Your task to perform on an android device: Go to wifi settings Image 0: 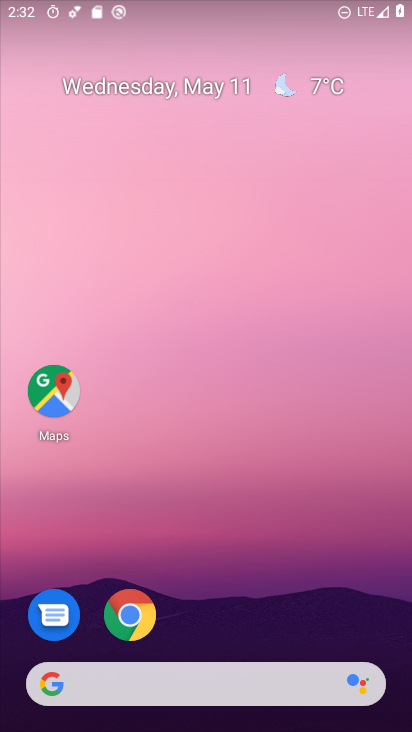
Step 0: drag from (213, 669) to (176, 188)
Your task to perform on an android device: Go to wifi settings Image 1: 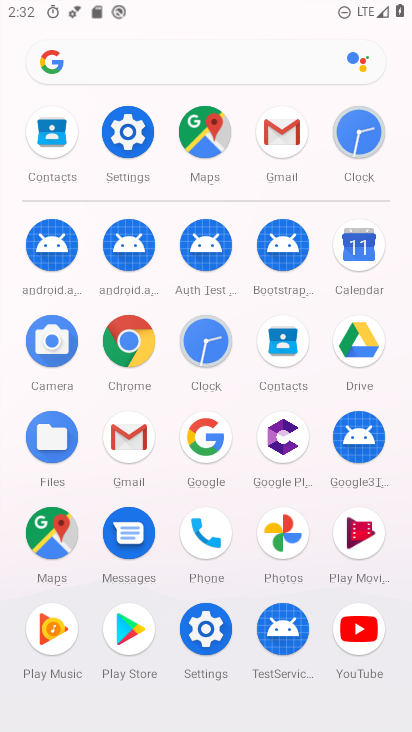
Step 1: click (138, 158)
Your task to perform on an android device: Go to wifi settings Image 2: 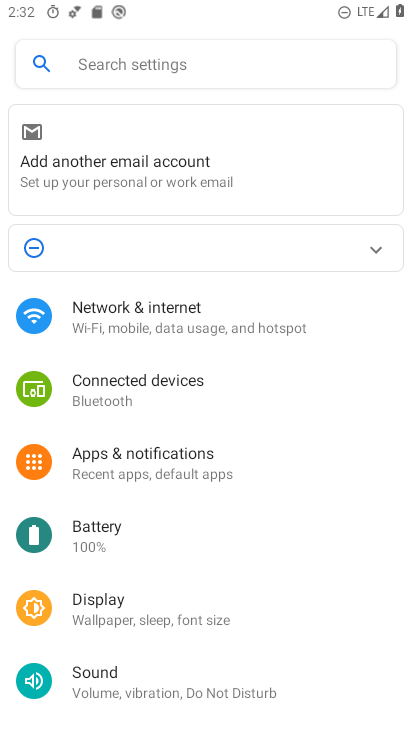
Step 2: click (138, 319)
Your task to perform on an android device: Go to wifi settings Image 3: 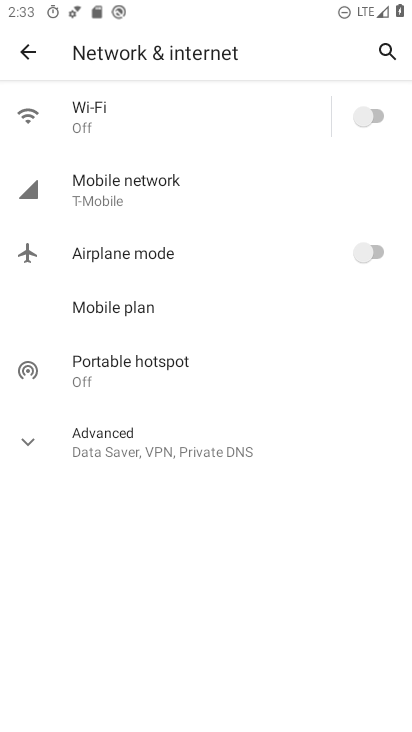
Step 3: click (117, 118)
Your task to perform on an android device: Go to wifi settings Image 4: 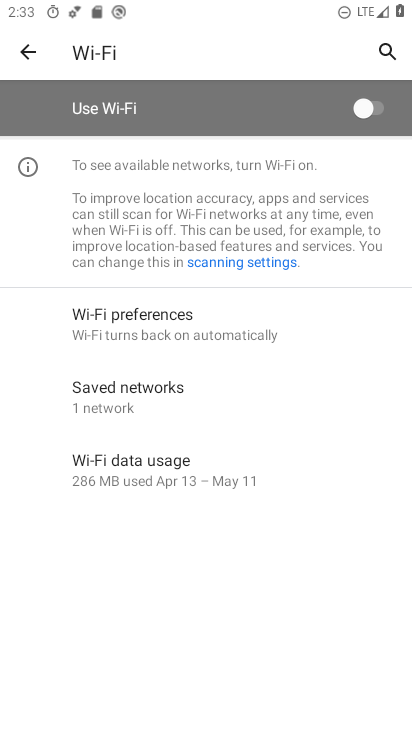
Step 4: task complete